Your task to perform on an android device: Is it going to rain today? Image 0: 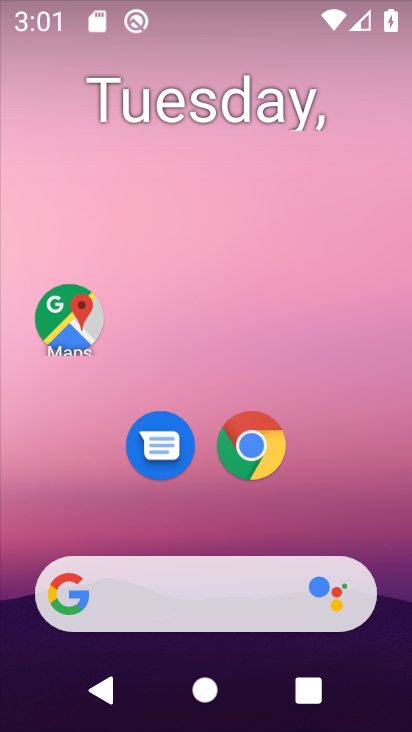
Step 0: click (122, 591)
Your task to perform on an android device: Is it going to rain today? Image 1: 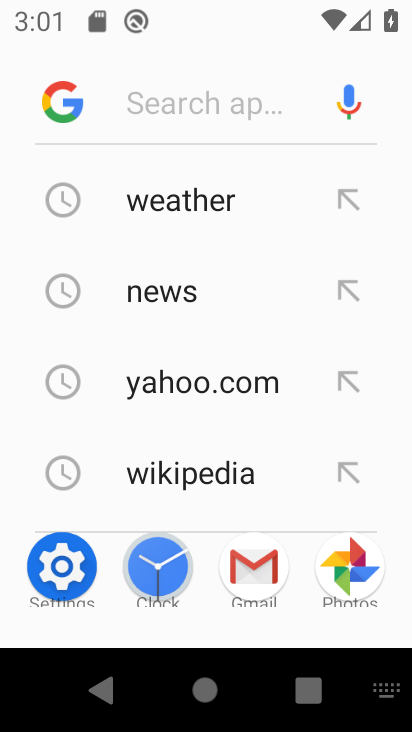
Step 1: click (179, 207)
Your task to perform on an android device: Is it going to rain today? Image 2: 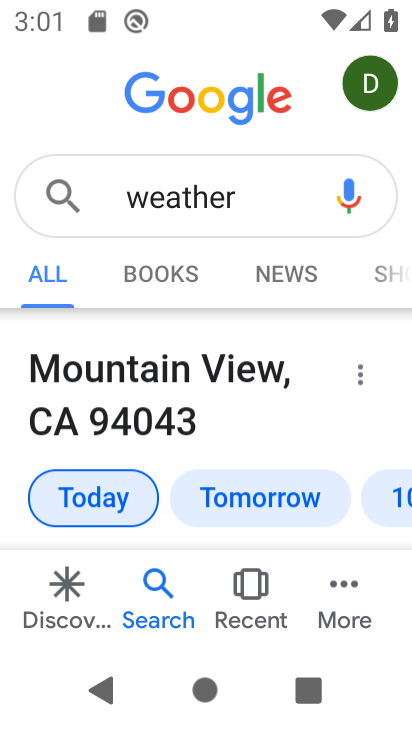
Step 2: task complete